Your task to perform on an android device: Do I have any events today? Image 0: 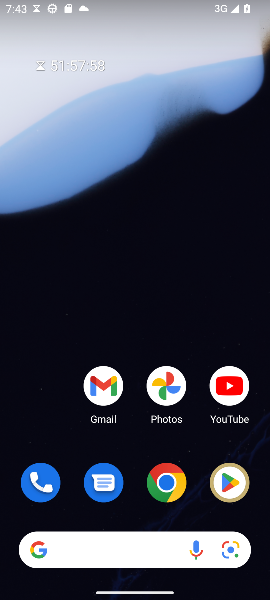
Step 0: drag from (123, 504) to (142, 45)
Your task to perform on an android device: Do I have any events today? Image 1: 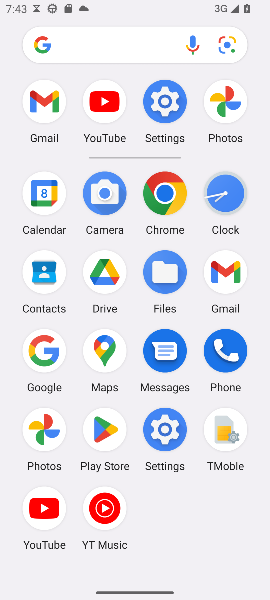
Step 1: click (54, 196)
Your task to perform on an android device: Do I have any events today? Image 2: 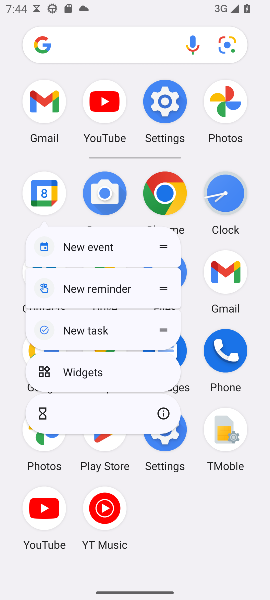
Step 2: click (54, 195)
Your task to perform on an android device: Do I have any events today? Image 3: 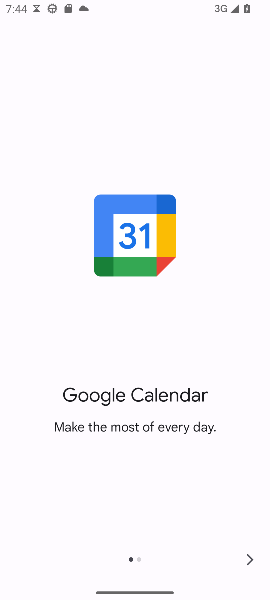
Step 3: click (247, 556)
Your task to perform on an android device: Do I have any events today? Image 4: 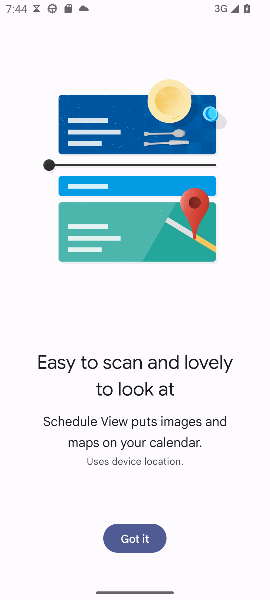
Step 4: click (147, 536)
Your task to perform on an android device: Do I have any events today? Image 5: 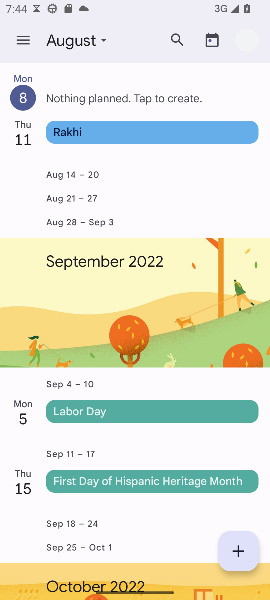
Step 5: click (85, 48)
Your task to perform on an android device: Do I have any events today? Image 6: 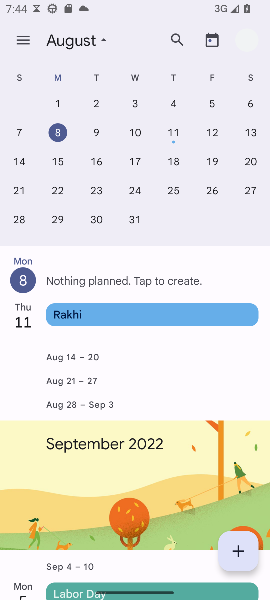
Step 6: task complete